Your task to perform on an android device: change notification settings in the gmail app Image 0: 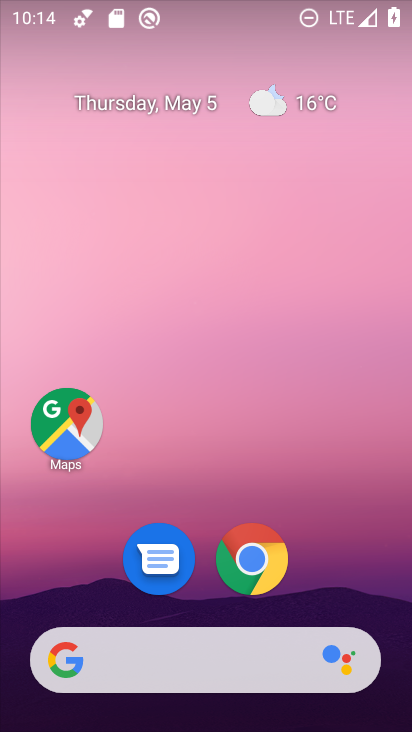
Step 0: drag from (359, 592) to (242, 5)
Your task to perform on an android device: change notification settings in the gmail app Image 1: 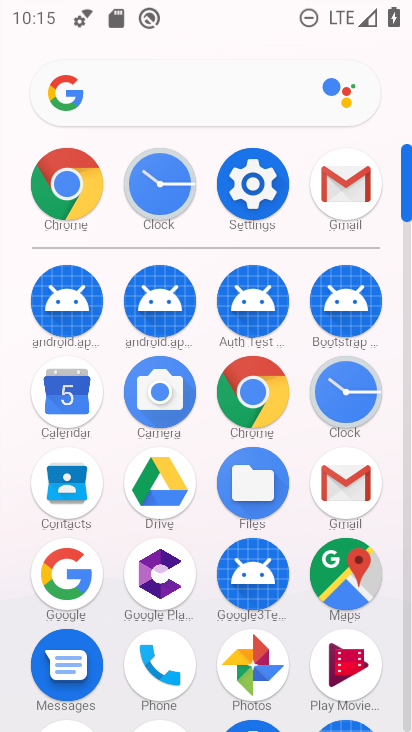
Step 1: click (354, 478)
Your task to perform on an android device: change notification settings in the gmail app Image 2: 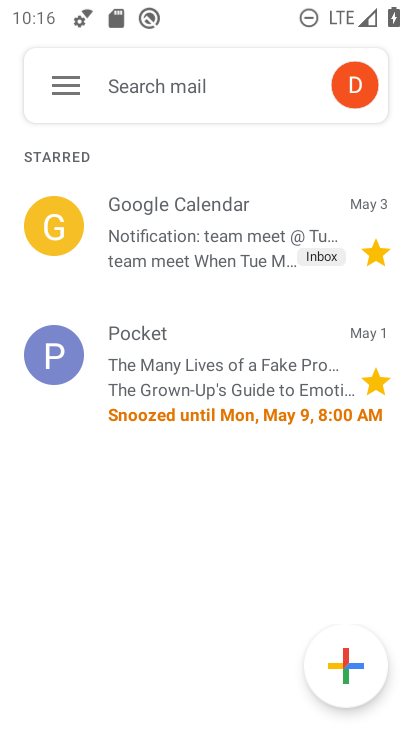
Step 2: click (65, 82)
Your task to perform on an android device: change notification settings in the gmail app Image 3: 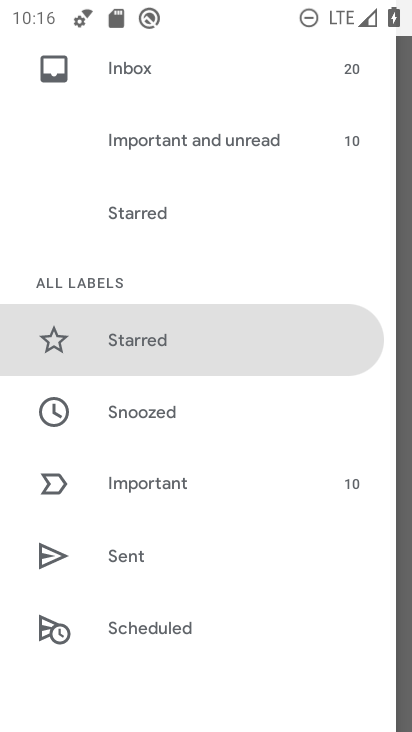
Step 3: drag from (231, 592) to (250, 133)
Your task to perform on an android device: change notification settings in the gmail app Image 4: 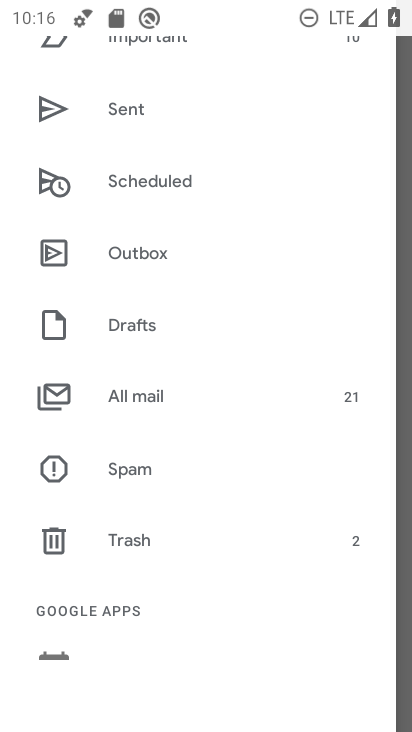
Step 4: drag from (168, 608) to (285, 141)
Your task to perform on an android device: change notification settings in the gmail app Image 5: 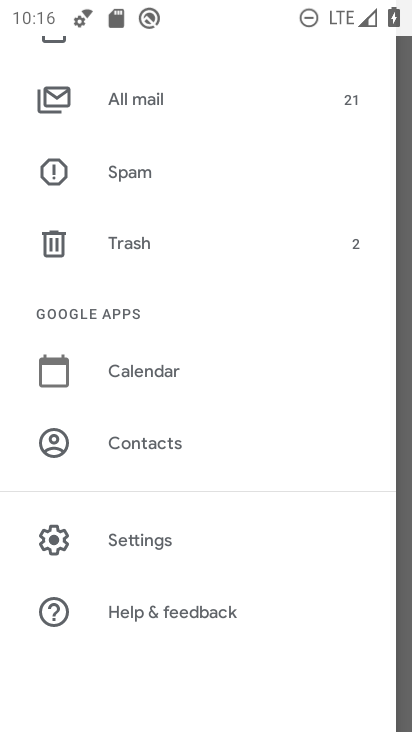
Step 5: click (183, 524)
Your task to perform on an android device: change notification settings in the gmail app Image 6: 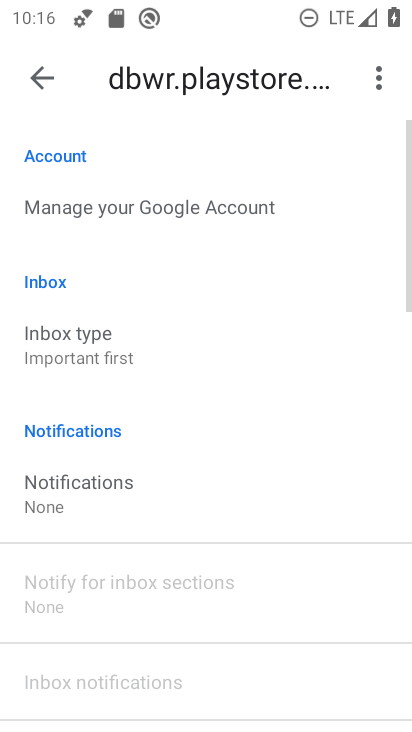
Step 6: click (139, 525)
Your task to perform on an android device: change notification settings in the gmail app Image 7: 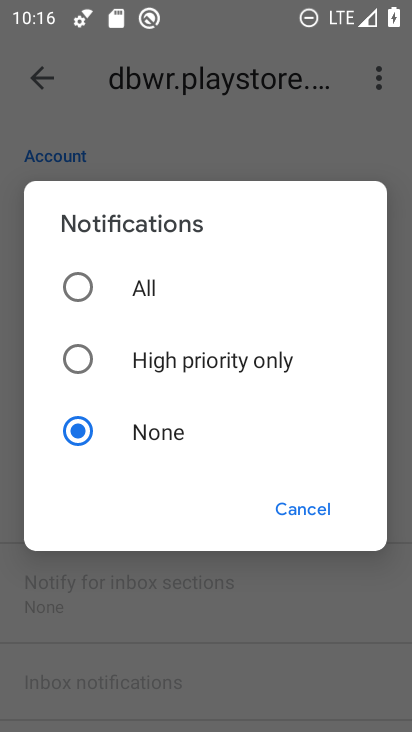
Step 7: click (119, 287)
Your task to perform on an android device: change notification settings in the gmail app Image 8: 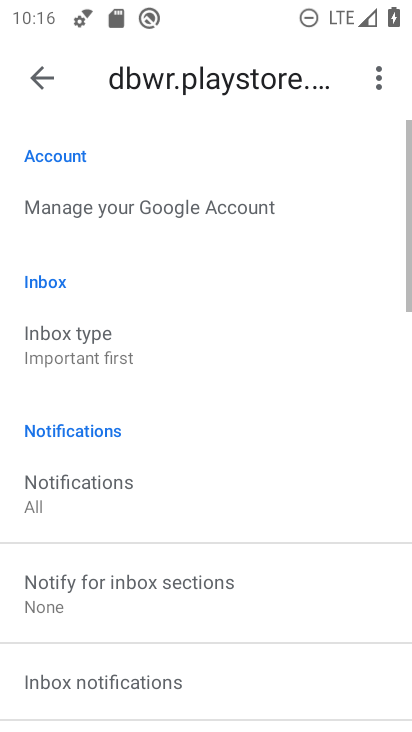
Step 8: task complete